Your task to perform on an android device: change timer sound Image 0: 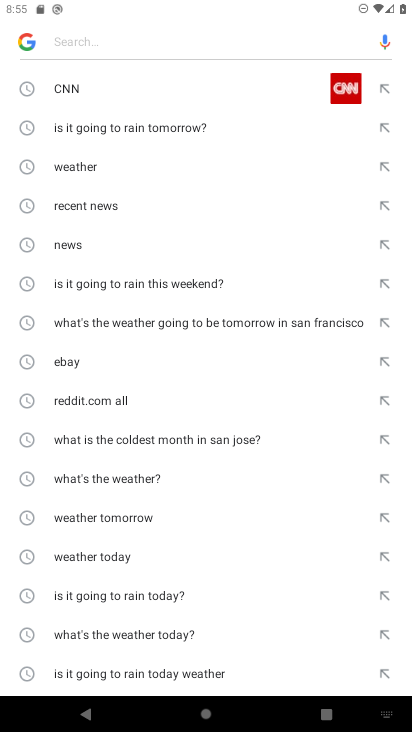
Step 0: drag from (191, 12) to (247, 659)
Your task to perform on an android device: change timer sound Image 1: 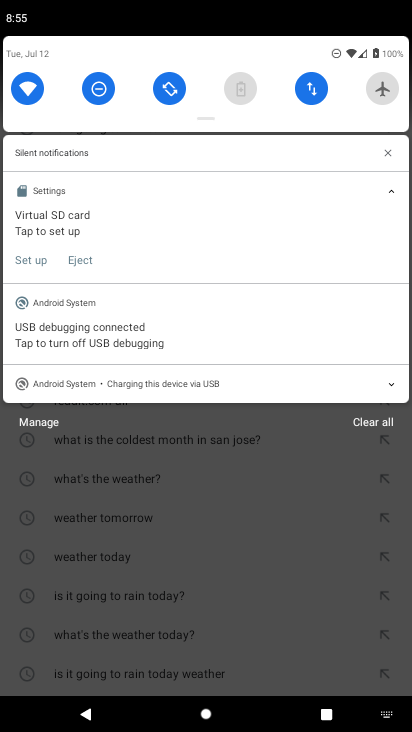
Step 1: drag from (202, 67) to (277, 688)
Your task to perform on an android device: change timer sound Image 2: 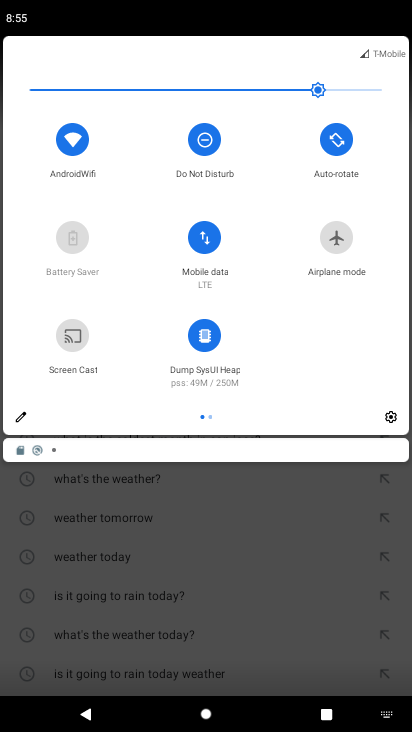
Step 2: press home button
Your task to perform on an android device: change timer sound Image 3: 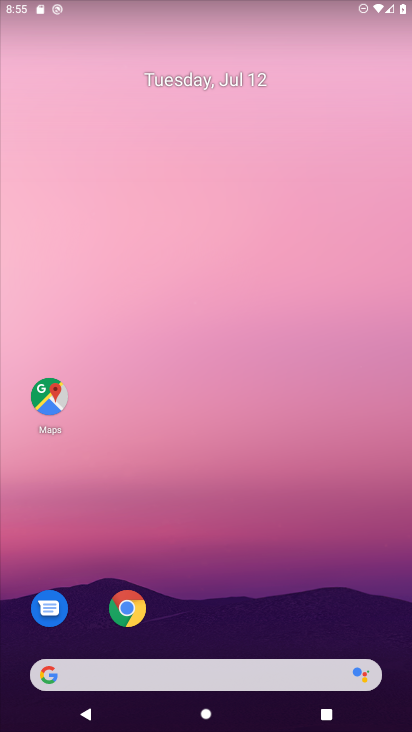
Step 3: drag from (185, 611) to (202, 56)
Your task to perform on an android device: change timer sound Image 4: 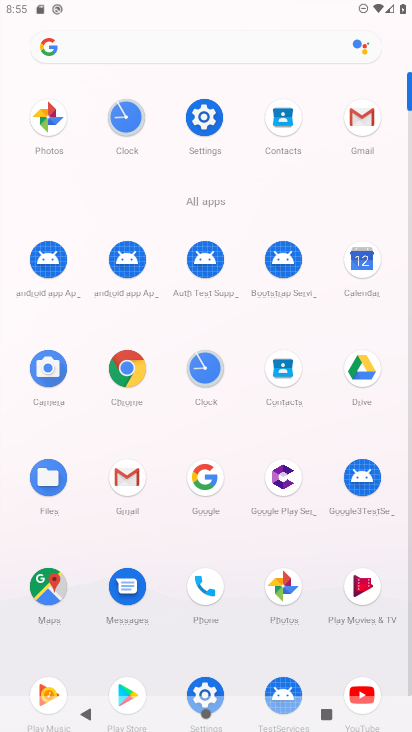
Step 4: click (111, 114)
Your task to perform on an android device: change timer sound Image 5: 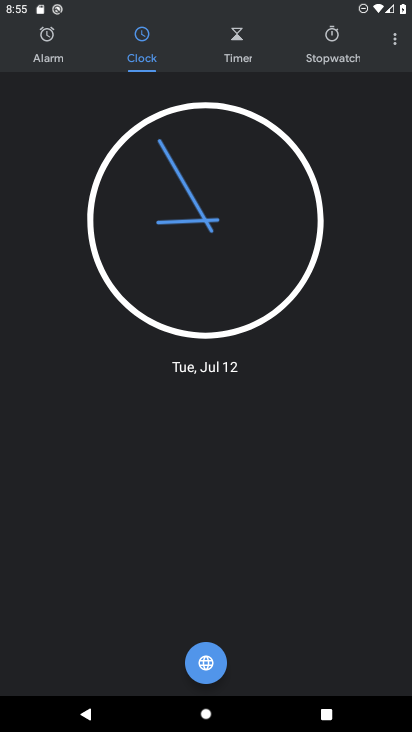
Step 5: click (401, 33)
Your task to perform on an android device: change timer sound Image 6: 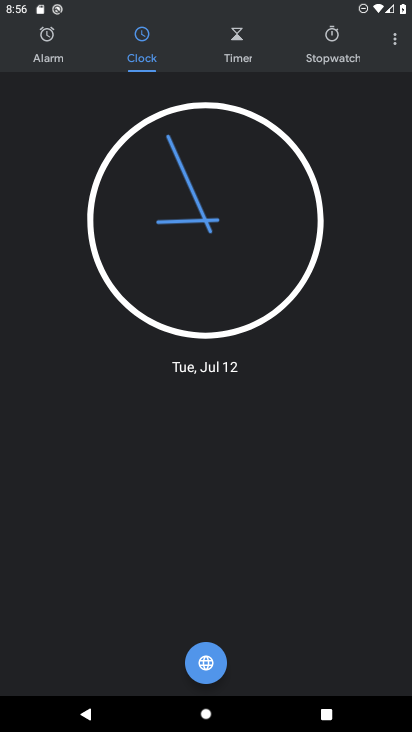
Step 6: click (388, 48)
Your task to perform on an android device: change timer sound Image 7: 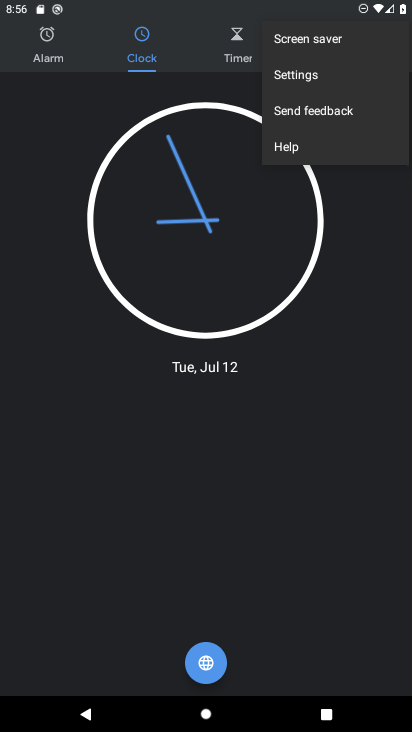
Step 7: click (332, 73)
Your task to perform on an android device: change timer sound Image 8: 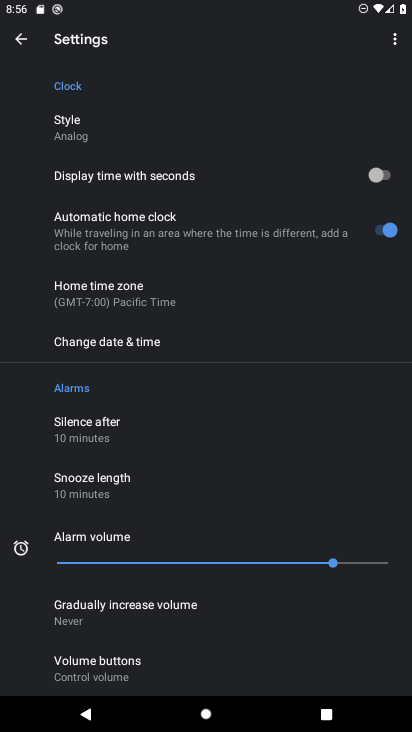
Step 8: drag from (154, 611) to (175, 209)
Your task to perform on an android device: change timer sound Image 9: 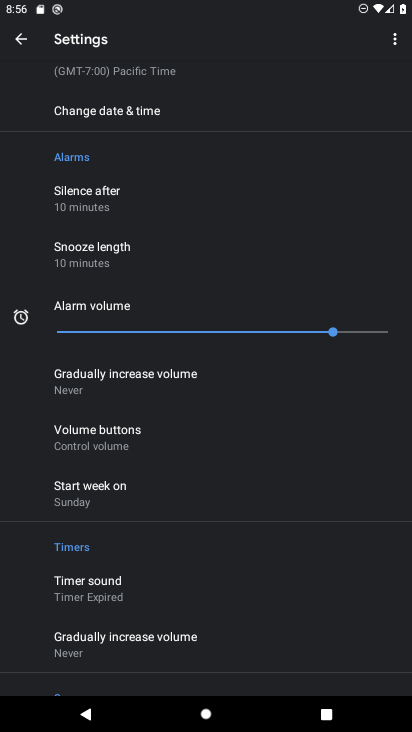
Step 9: click (159, 578)
Your task to perform on an android device: change timer sound Image 10: 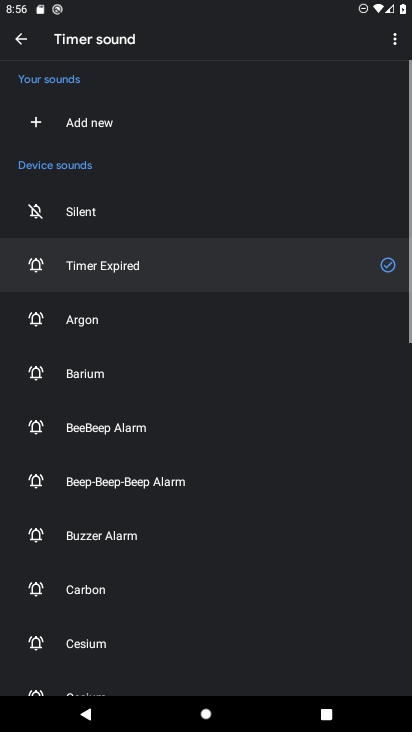
Step 10: click (159, 578)
Your task to perform on an android device: change timer sound Image 11: 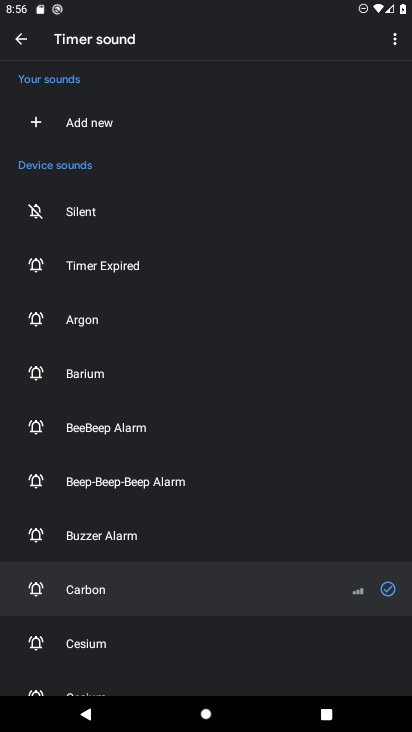
Step 11: task complete